Your task to perform on an android device: Open battery settings Image 0: 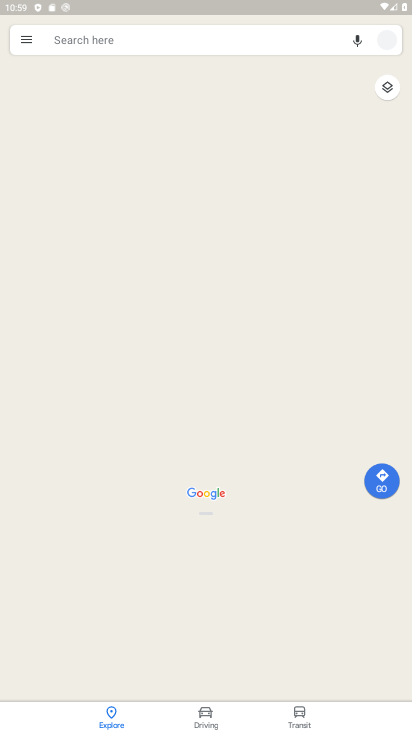
Step 0: press home button
Your task to perform on an android device: Open battery settings Image 1: 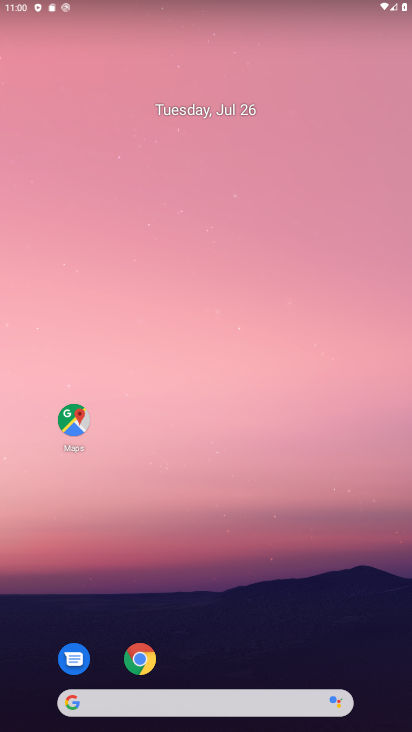
Step 1: drag from (62, 540) to (261, 78)
Your task to perform on an android device: Open battery settings Image 2: 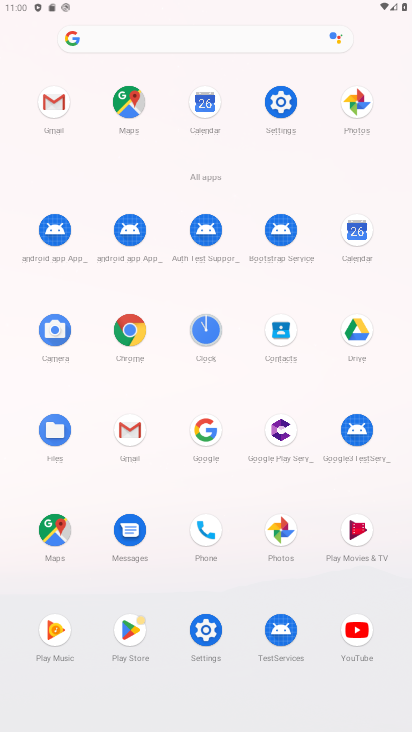
Step 2: click (276, 105)
Your task to perform on an android device: Open battery settings Image 3: 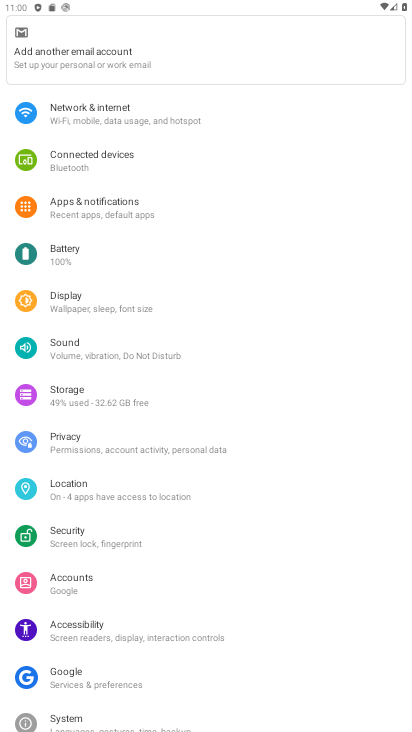
Step 3: click (70, 245)
Your task to perform on an android device: Open battery settings Image 4: 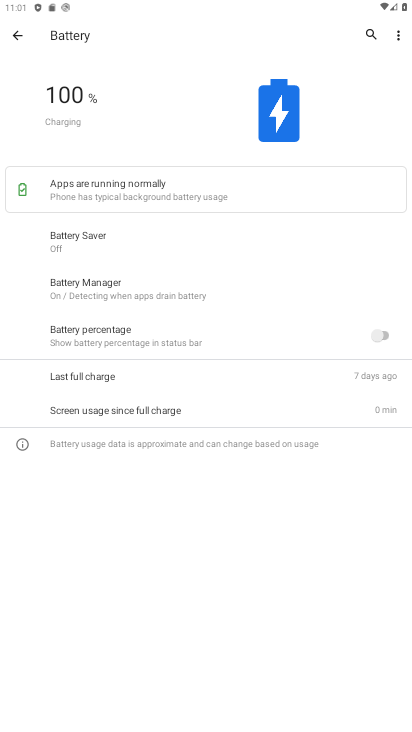
Step 4: task complete